Your task to perform on an android device: Set the phone to "Do not disturb". Image 0: 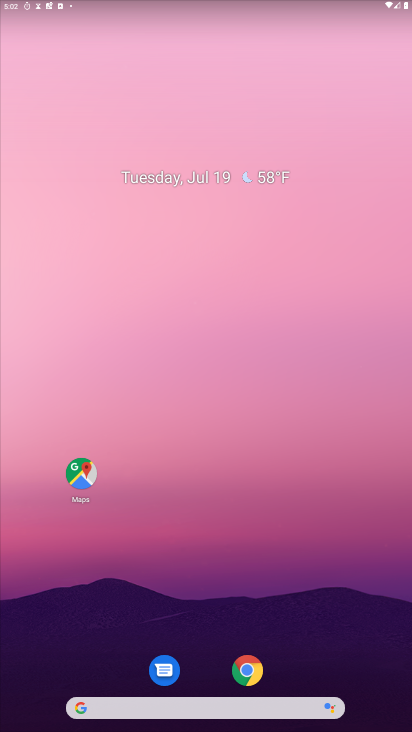
Step 0: drag from (287, 702) to (358, 2)
Your task to perform on an android device: Set the phone to "Do not disturb". Image 1: 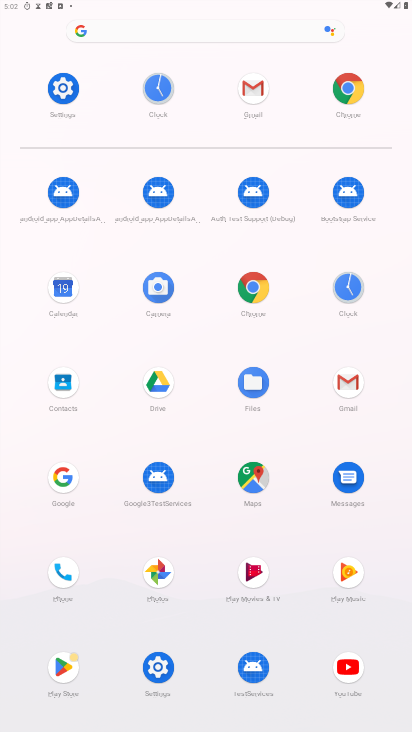
Step 1: click (143, 674)
Your task to perform on an android device: Set the phone to "Do not disturb". Image 2: 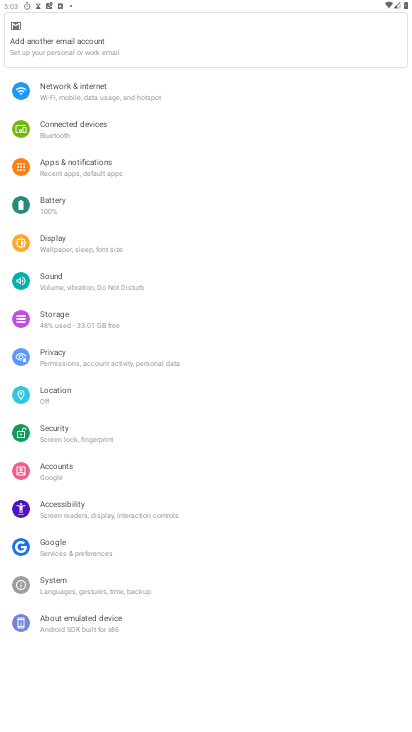
Step 2: click (82, 281)
Your task to perform on an android device: Set the phone to "Do not disturb". Image 3: 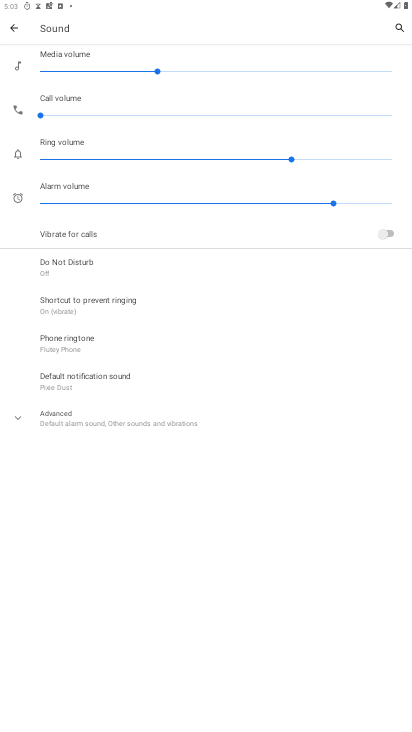
Step 3: click (78, 263)
Your task to perform on an android device: Set the phone to "Do not disturb". Image 4: 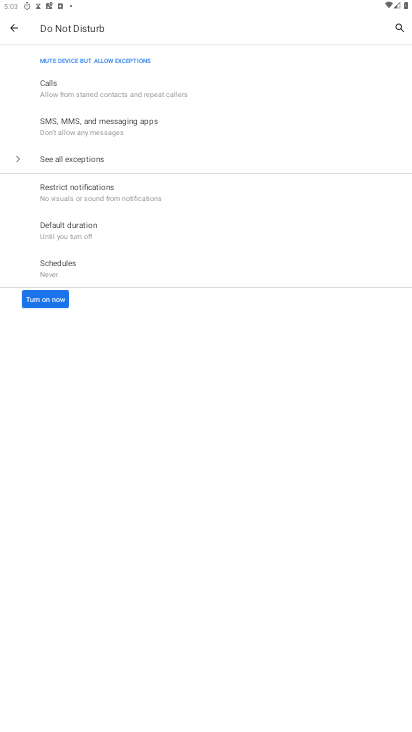
Step 4: click (65, 296)
Your task to perform on an android device: Set the phone to "Do not disturb". Image 5: 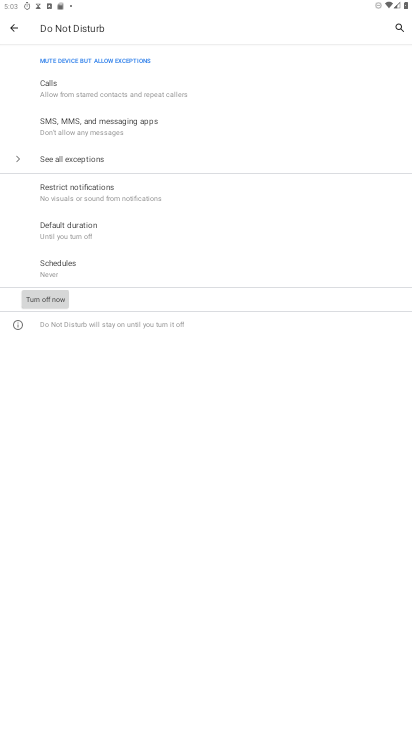
Step 5: task complete